Your task to perform on an android device: turn off sleep mode Image 0: 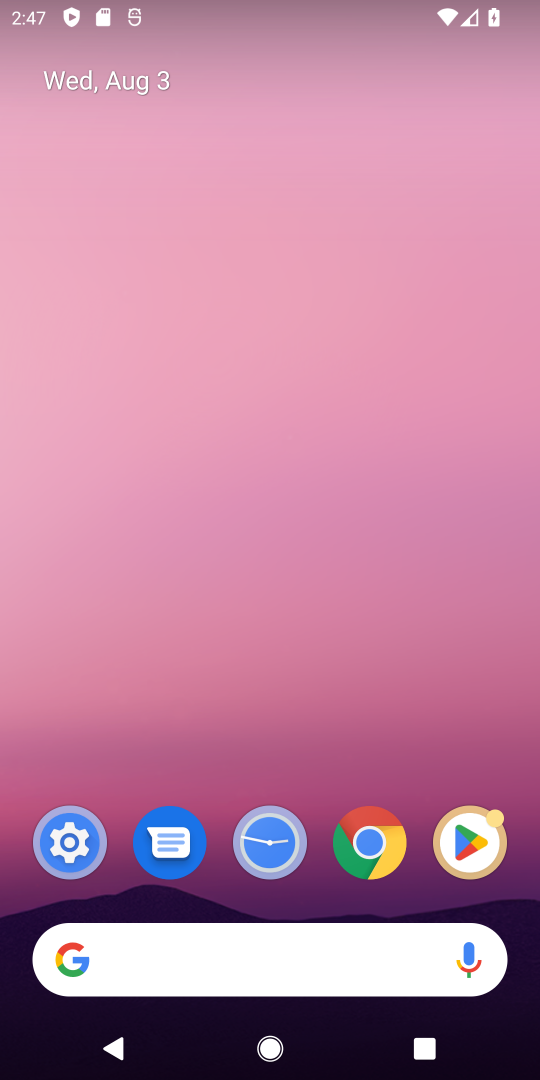
Step 0: drag from (343, 912) to (277, 110)
Your task to perform on an android device: turn off sleep mode Image 1: 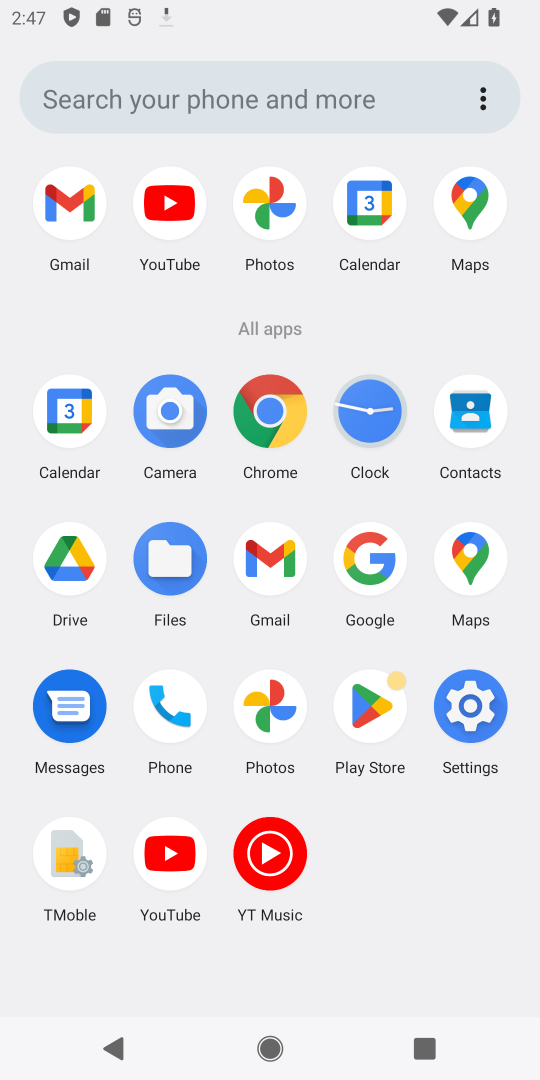
Step 1: click (469, 705)
Your task to perform on an android device: turn off sleep mode Image 2: 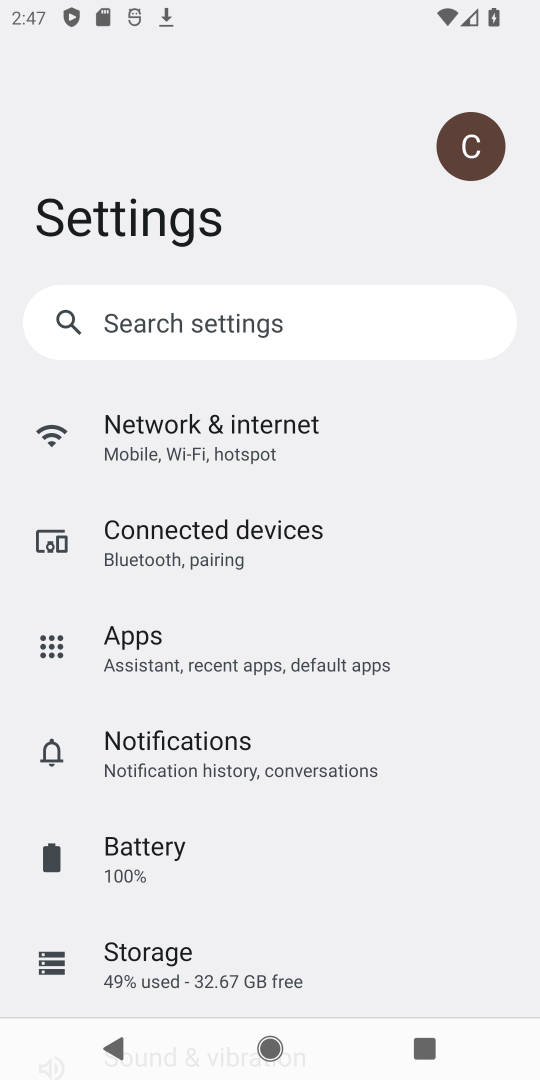
Step 2: click (318, 552)
Your task to perform on an android device: turn off sleep mode Image 3: 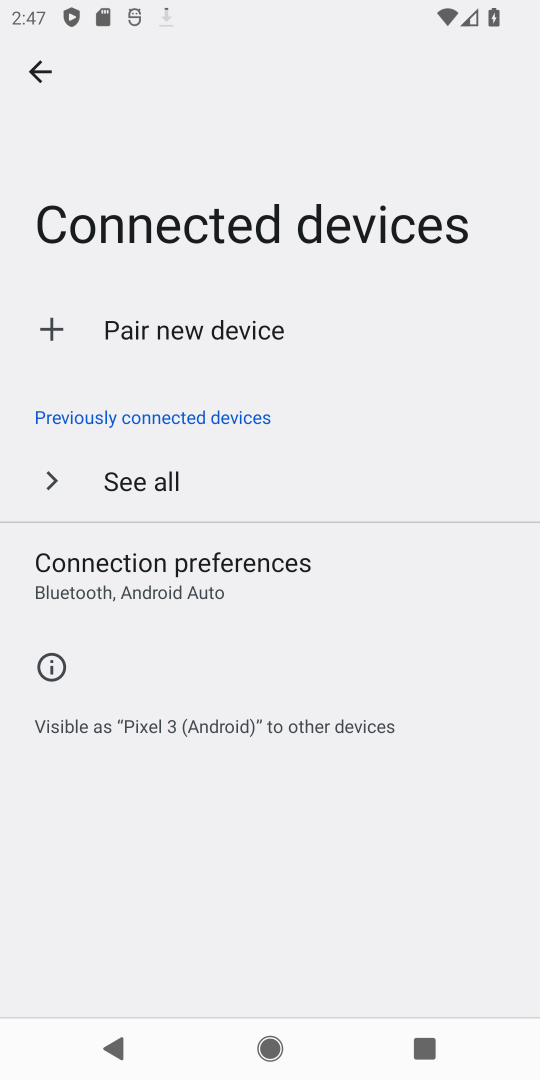
Step 3: task complete